Your task to perform on an android device: open a bookmark in the chrome app Image 0: 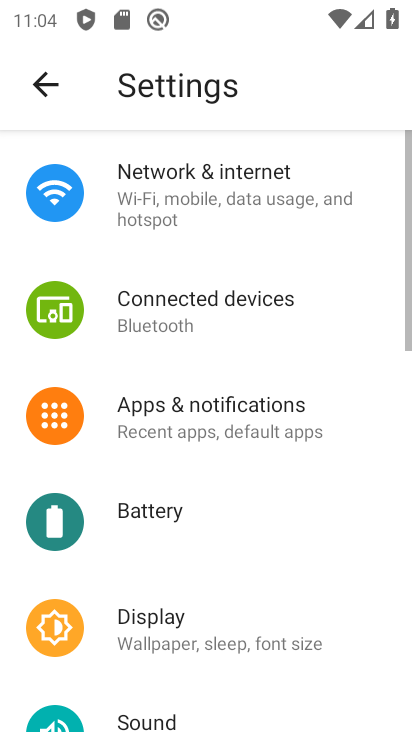
Step 0: press home button
Your task to perform on an android device: open a bookmark in the chrome app Image 1: 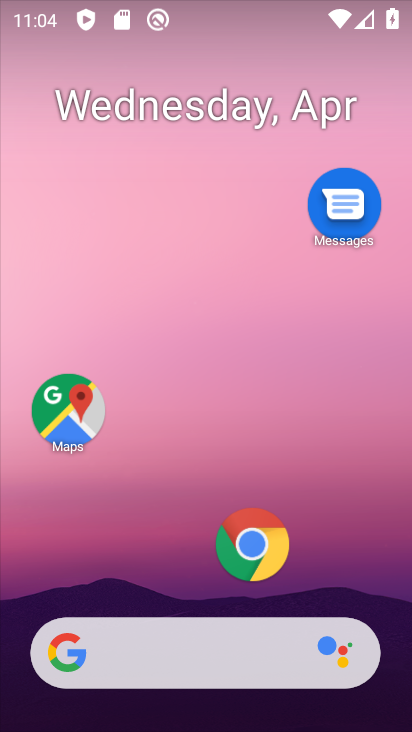
Step 1: click (254, 532)
Your task to perform on an android device: open a bookmark in the chrome app Image 2: 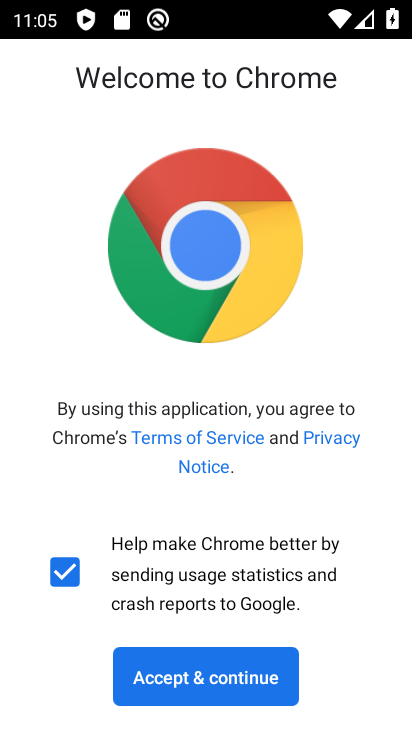
Step 2: click (246, 664)
Your task to perform on an android device: open a bookmark in the chrome app Image 3: 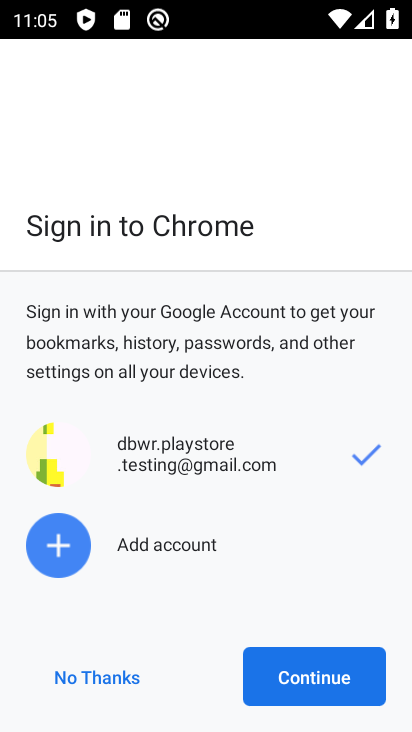
Step 3: click (239, 618)
Your task to perform on an android device: open a bookmark in the chrome app Image 4: 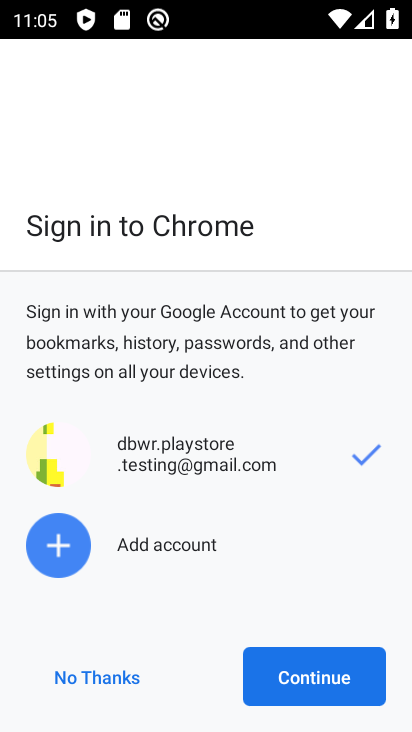
Step 4: click (294, 683)
Your task to perform on an android device: open a bookmark in the chrome app Image 5: 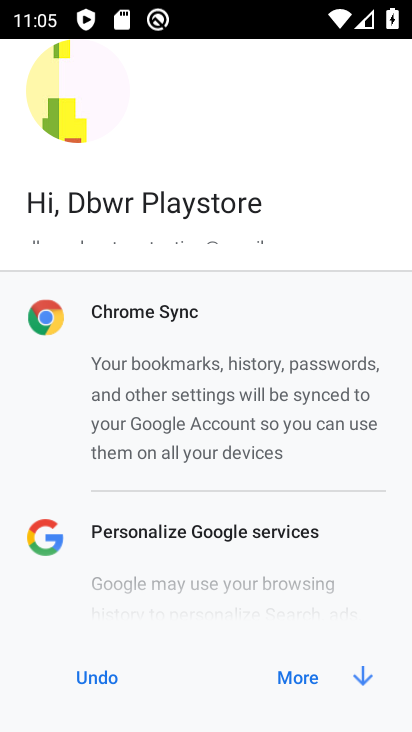
Step 5: click (307, 691)
Your task to perform on an android device: open a bookmark in the chrome app Image 6: 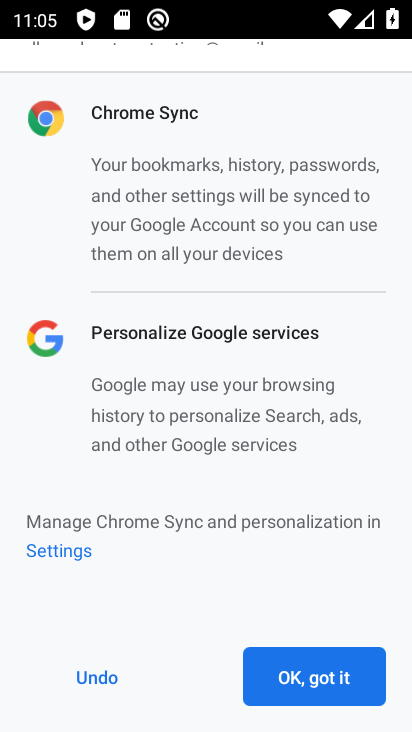
Step 6: click (336, 688)
Your task to perform on an android device: open a bookmark in the chrome app Image 7: 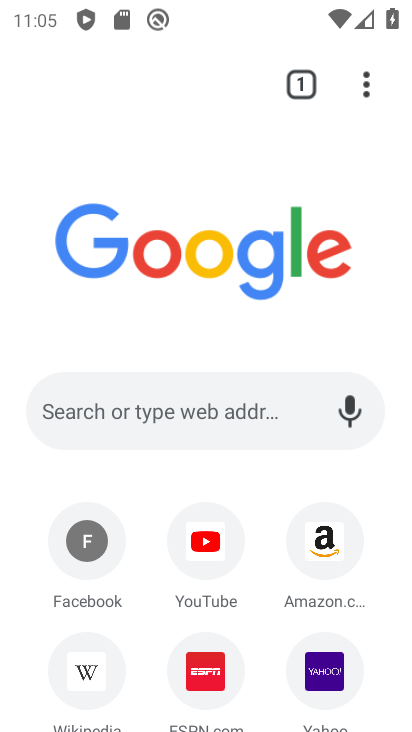
Step 7: task complete